Your task to perform on an android device: Open network settings Image 0: 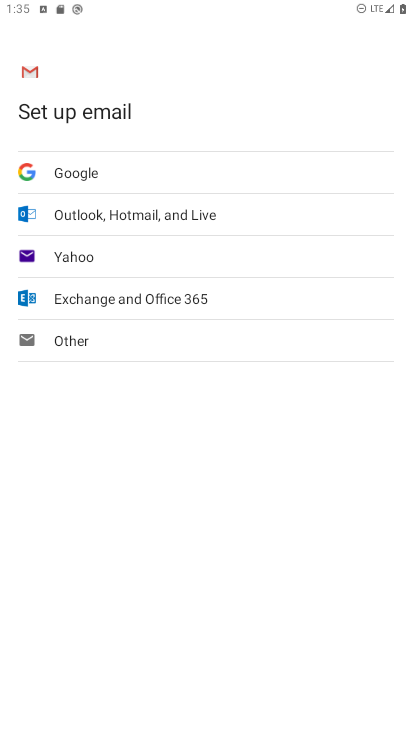
Step 0: press home button
Your task to perform on an android device: Open network settings Image 1: 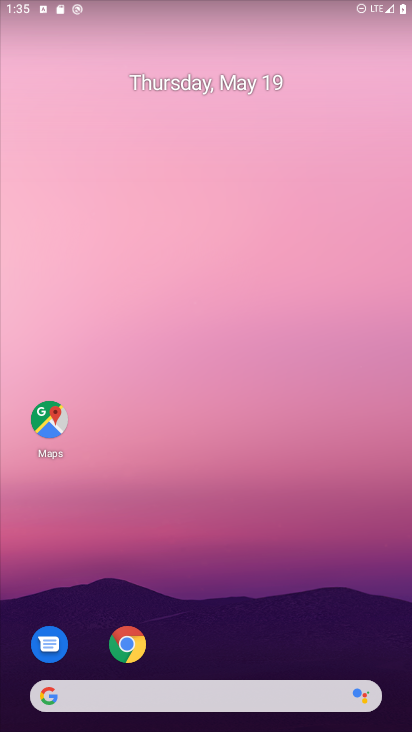
Step 1: drag from (275, 513) to (296, 0)
Your task to perform on an android device: Open network settings Image 2: 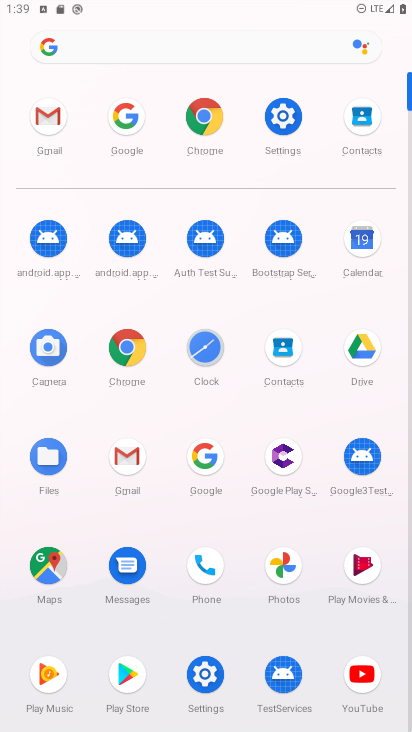
Step 2: click (208, 671)
Your task to perform on an android device: Open network settings Image 3: 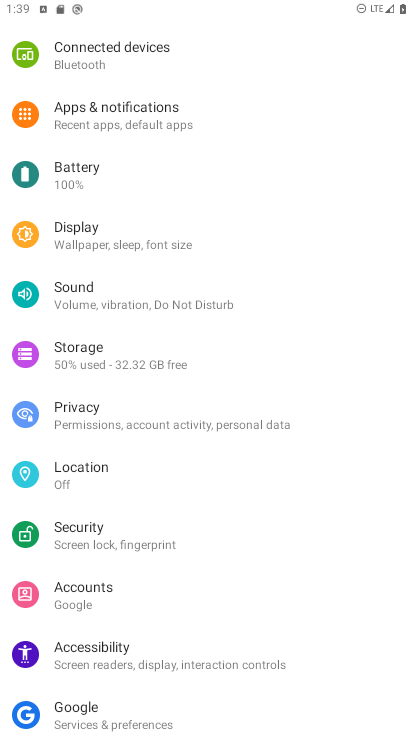
Step 3: drag from (236, 104) to (229, 477)
Your task to perform on an android device: Open network settings Image 4: 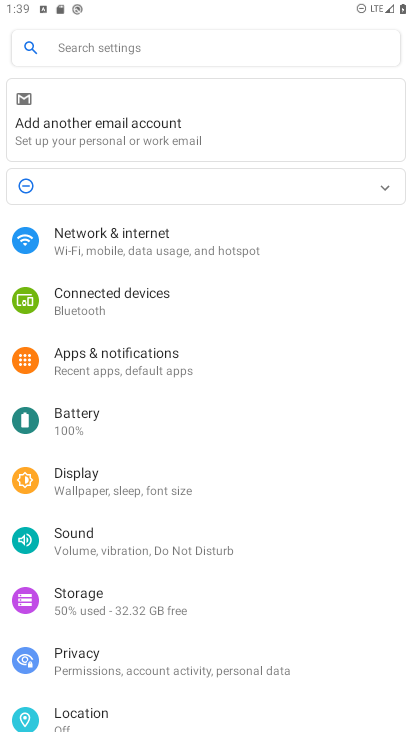
Step 4: click (117, 238)
Your task to perform on an android device: Open network settings Image 5: 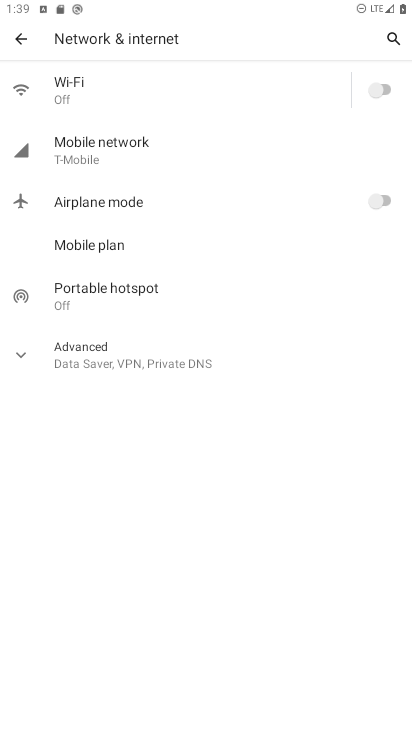
Step 5: task complete